Your task to perform on an android device: Open battery settings Image 0: 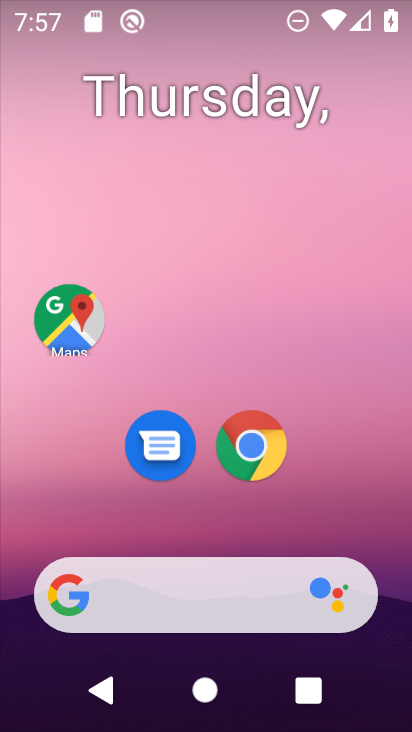
Step 0: drag from (358, 524) to (315, 2)
Your task to perform on an android device: Open battery settings Image 1: 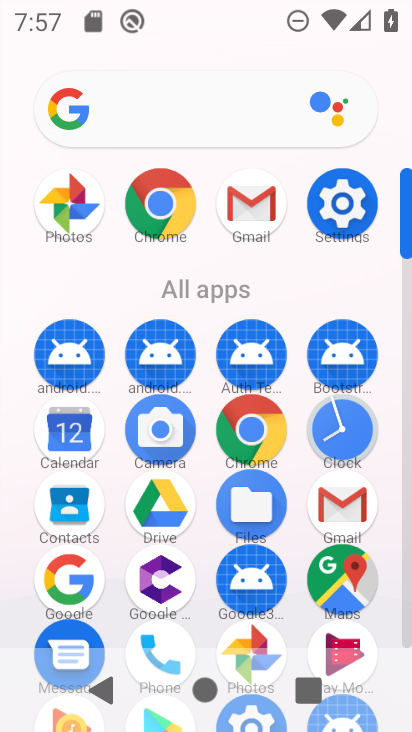
Step 1: click (337, 208)
Your task to perform on an android device: Open battery settings Image 2: 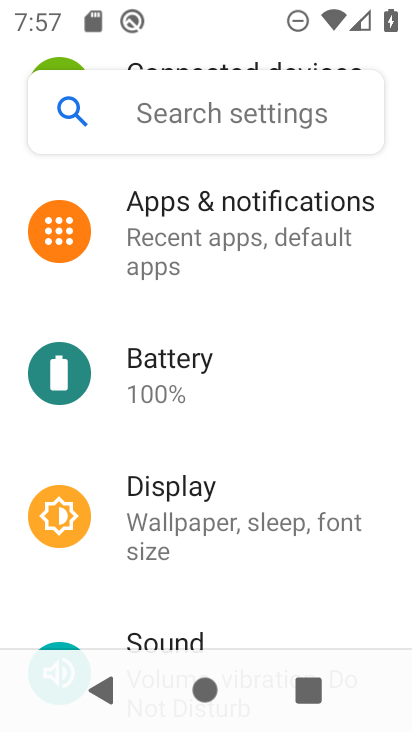
Step 2: click (147, 378)
Your task to perform on an android device: Open battery settings Image 3: 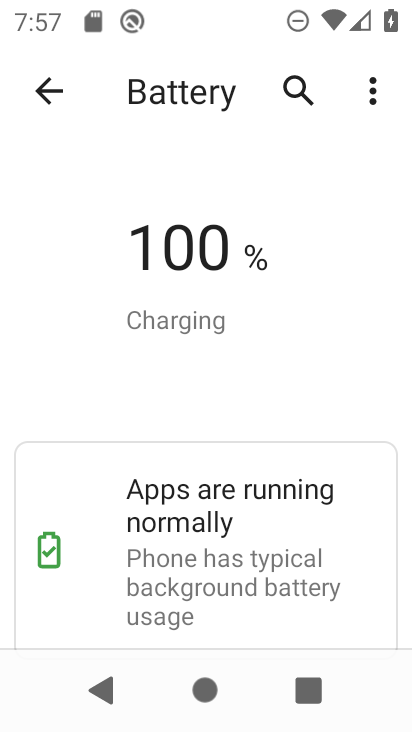
Step 3: task complete